Your task to perform on an android device: Show me the alarms in the clock app Image 0: 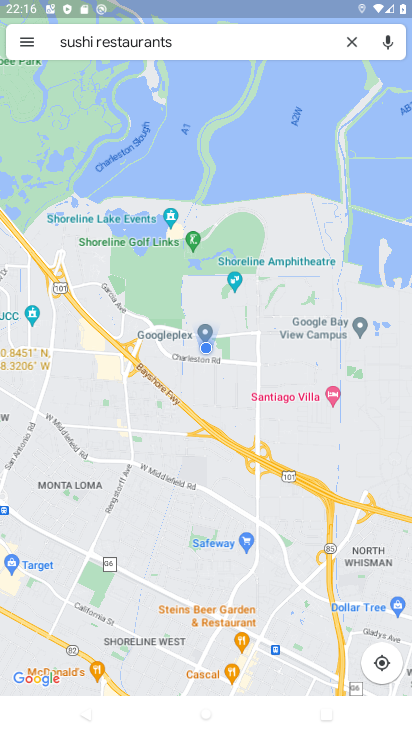
Step 0: press home button
Your task to perform on an android device: Show me the alarms in the clock app Image 1: 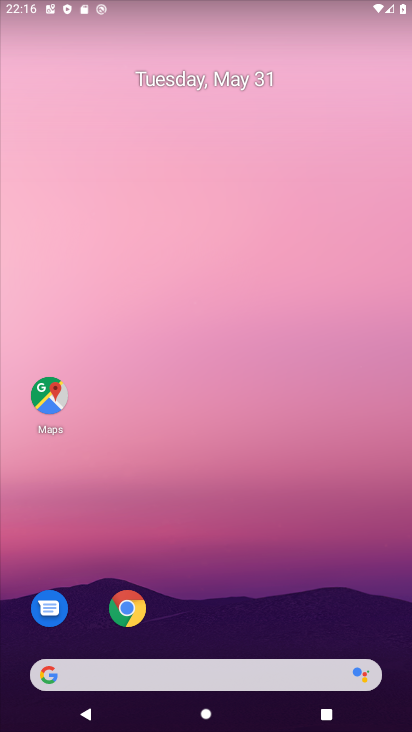
Step 1: drag from (246, 648) to (142, 1)
Your task to perform on an android device: Show me the alarms in the clock app Image 2: 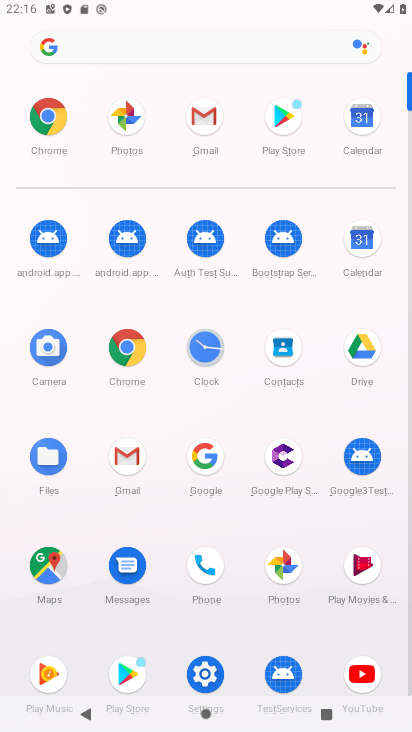
Step 2: click (208, 345)
Your task to perform on an android device: Show me the alarms in the clock app Image 3: 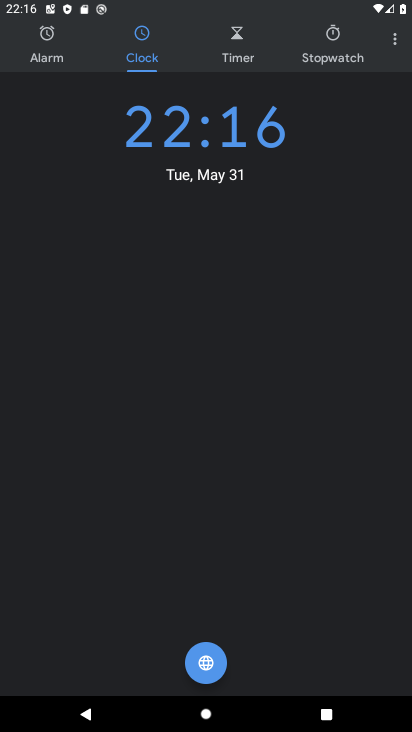
Step 3: click (54, 35)
Your task to perform on an android device: Show me the alarms in the clock app Image 4: 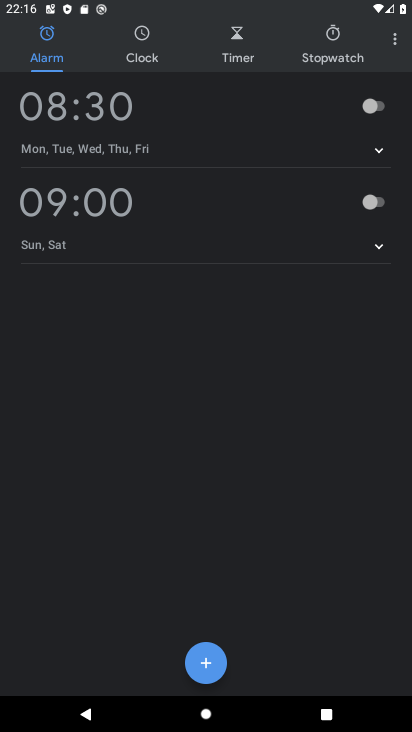
Step 4: task complete